Your task to perform on an android device: Open Google Maps Image 0: 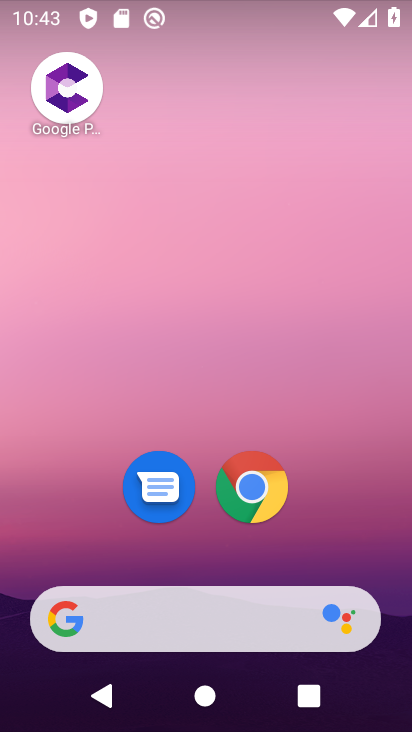
Step 0: press home button
Your task to perform on an android device: Open Google Maps Image 1: 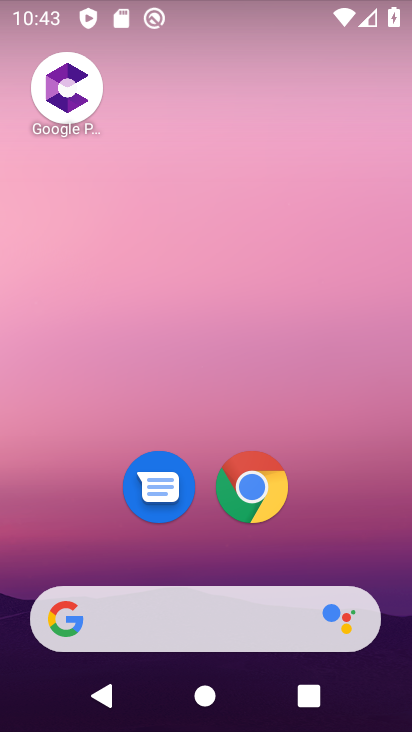
Step 1: drag from (365, 540) to (382, 367)
Your task to perform on an android device: Open Google Maps Image 2: 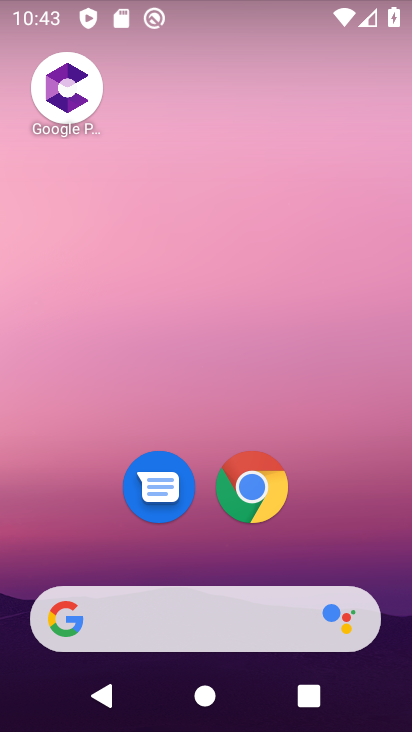
Step 2: drag from (346, 467) to (354, 67)
Your task to perform on an android device: Open Google Maps Image 3: 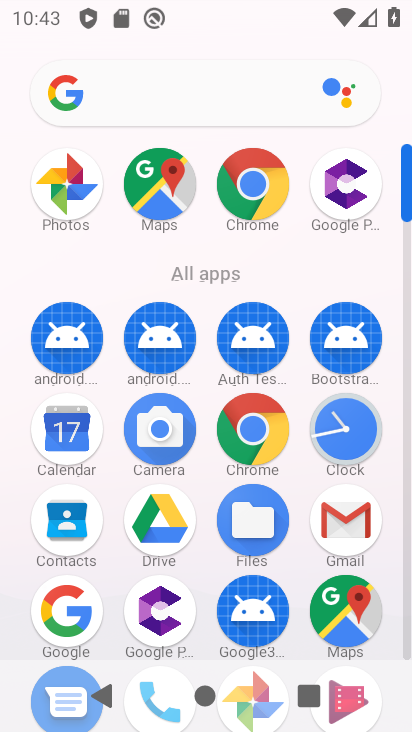
Step 3: click (155, 163)
Your task to perform on an android device: Open Google Maps Image 4: 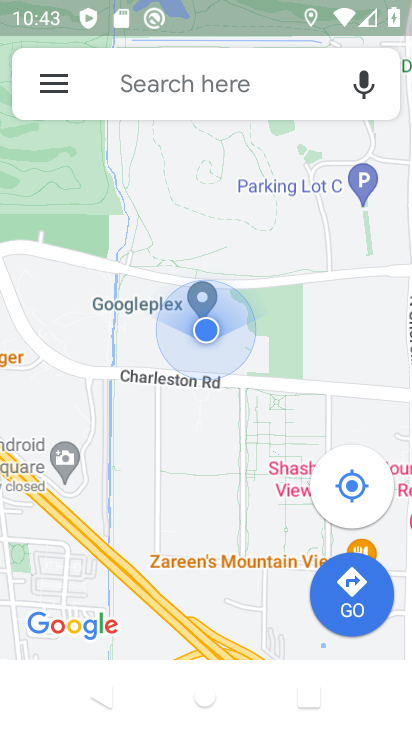
Step 4: click (135, 86)
Your task to perform on an android device: Open Google Maps Image 5: 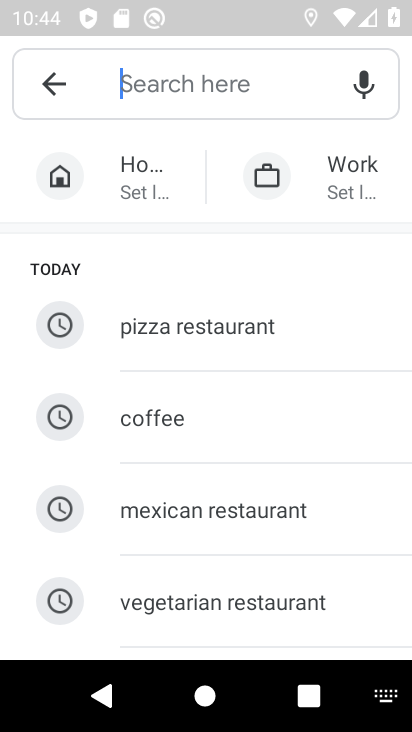
Step 5: task complete